Your task to perform on an android device: Go to wifi settings Image 0: 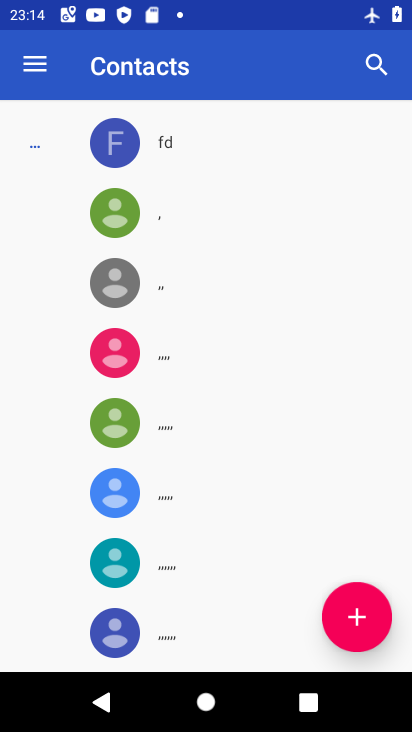
Step 0: drag from (172, 523) to (201, 130)
Your task to perform on an android device: Go to wifi settings Image 1: 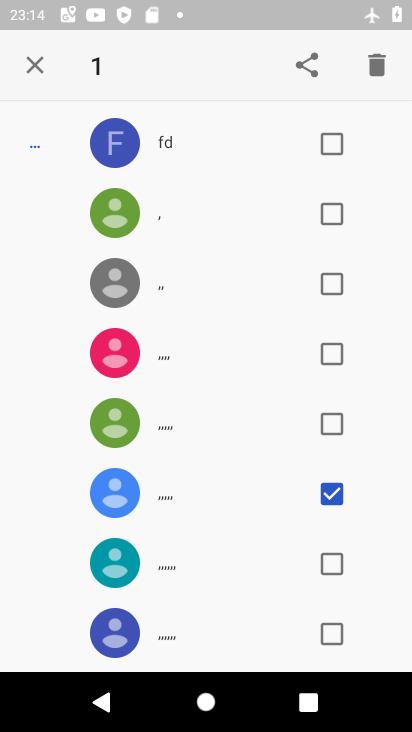
Step 1: press home button
Your task to perform on an android device: Go to wifi settings Image 2: 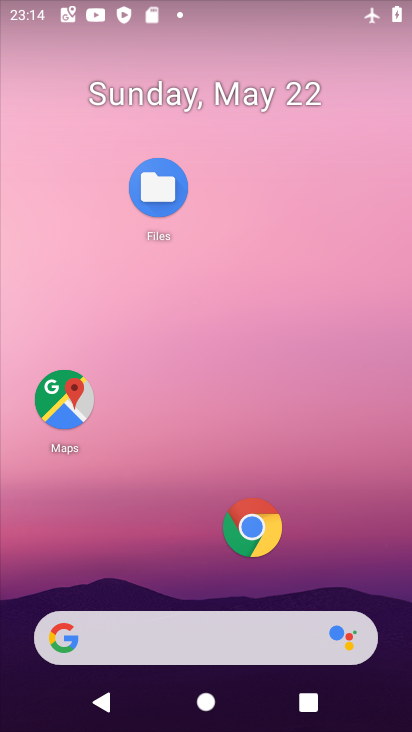
Step 2: drag from (179, 534) to (278, 31)
Your task to perform on an android device: Go to wifi settings Image 3: 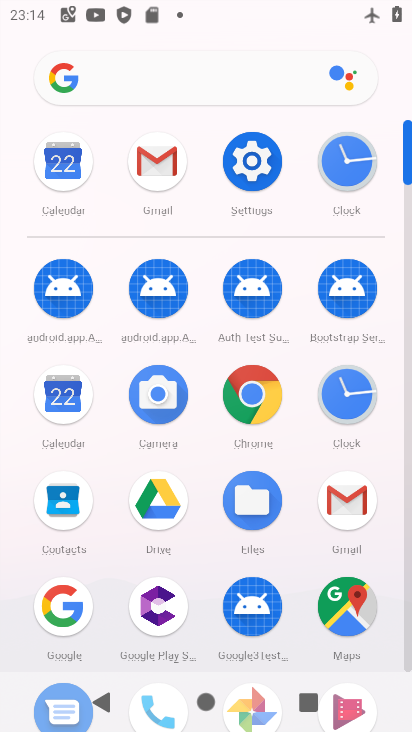
Step 3: drag from (336, 564) to (308, 160)
Your task to perform on an android device: Go to wifi settings Image 4: 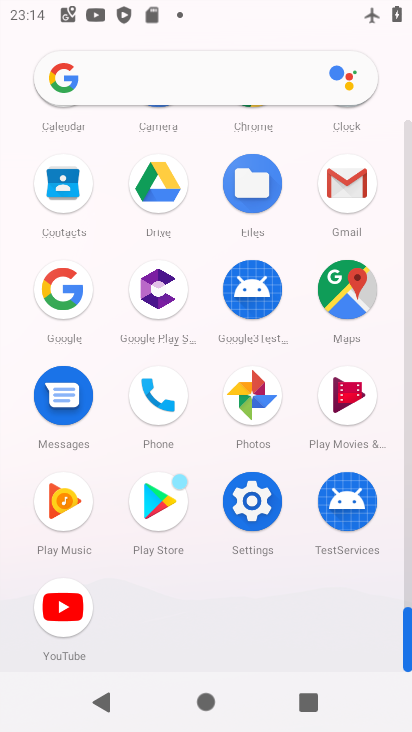
Step 4: click (252, 497)
Your task to perform on an android device: Go to wifi settings Image 5: 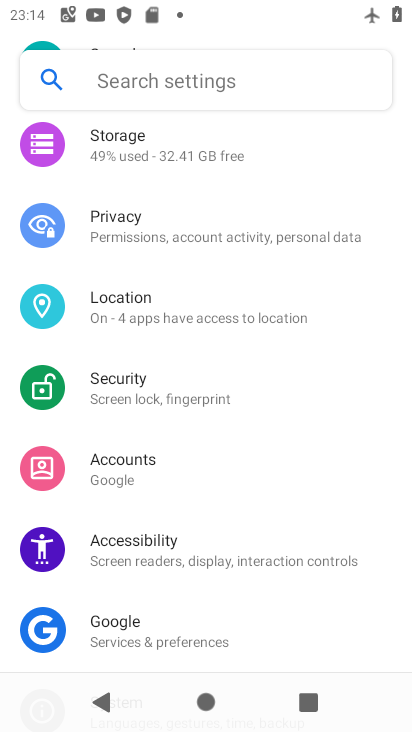
Step 5: drag from (209, 185) to (201, 696)
Your task to perform on an android device: Go to wifi settings Image 6: 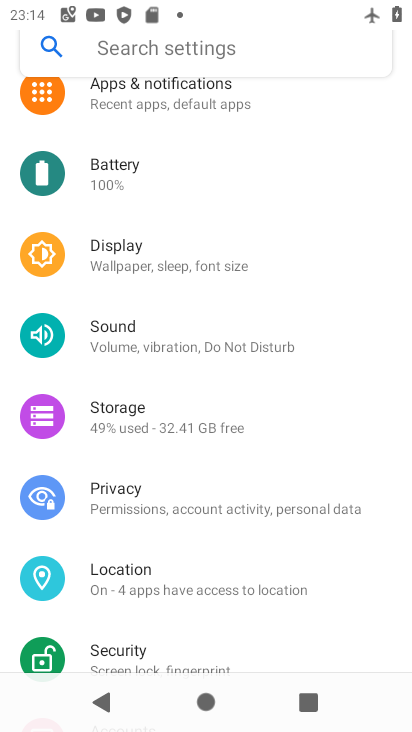
Step 6: drag from (167, 210) to (249, 714)
Your task to perform on an android device: Go to wifi settings Image 7: 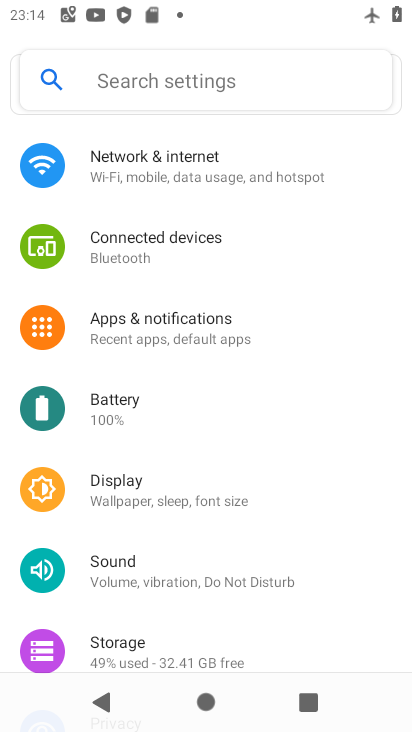
Step 7: click (123, 159)
Your task to perform on an android device: Go to wifi settings Image 8: 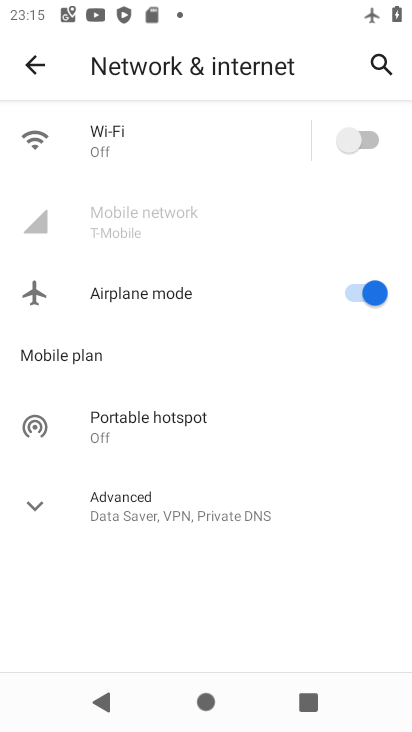
Step 8: task complete